Your task to perform on an android device: What's the weather going to be this weekend? Image 0: 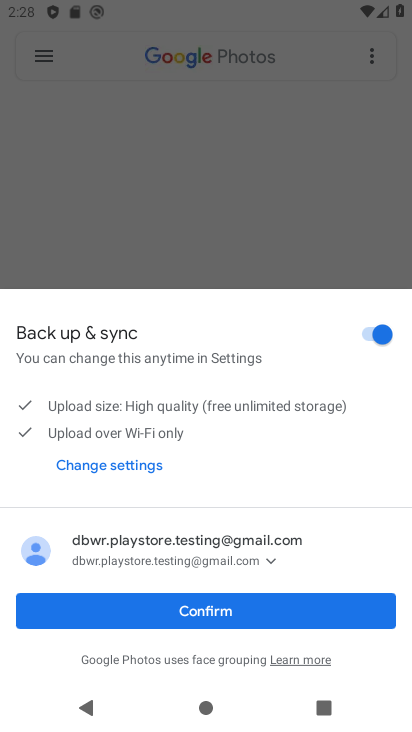
Step 0: click (246, 599)
Your task to perform on an android device: What's the weather going to be this weekend? Image 1: 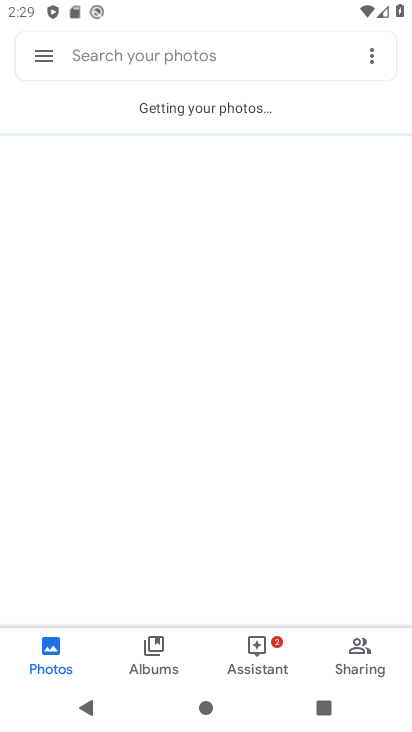
Step 1: press back button
Your task to perform on an android device: What's the weather going to be this weekend? Image 2: 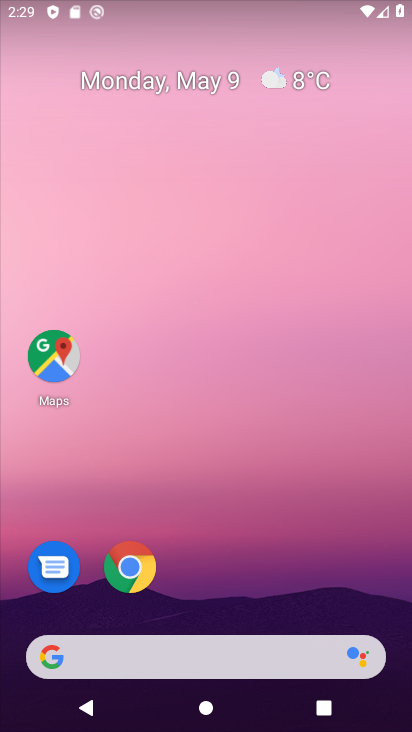
Step 2: click (129, 559)
Your task to perform on an android device: What's the weather going to be this weekend? Image 3: 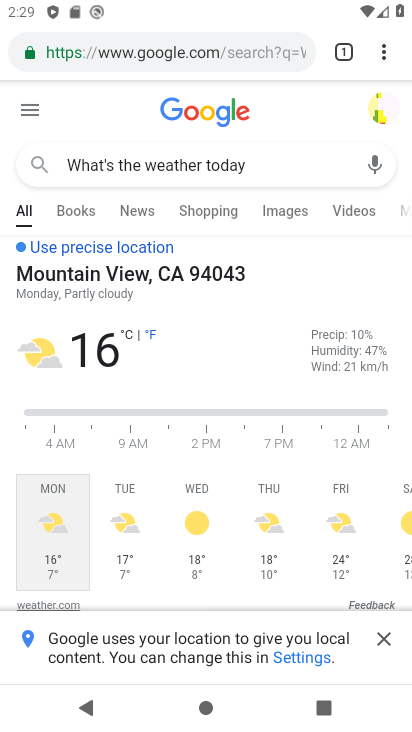
Step 3: click (188, 45)
Your task to perform on an android device: What's the weather going to be this weekend? Image 4: 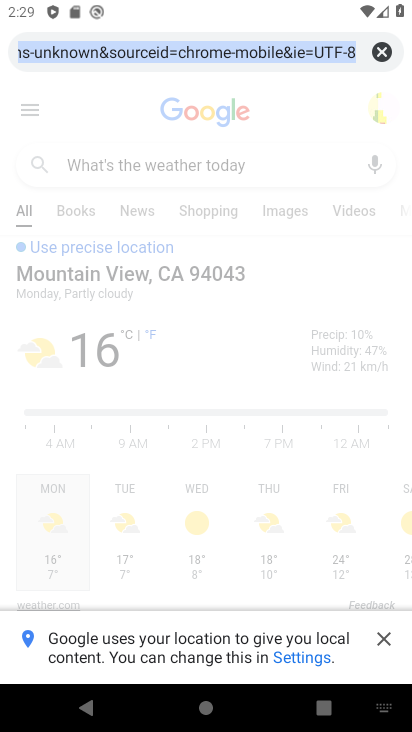
Step 4: click (377, 51)
Your task to perform on an android device: What's the weather going to be this weekend? Image 5: 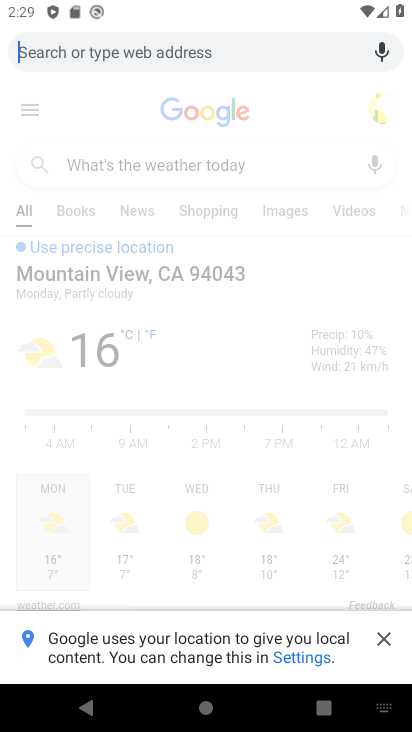
Step 5: type "What's the weather going to be this weekend?"
Your task to perform on an android device: What's the weather going to be this weekend? Image 6: 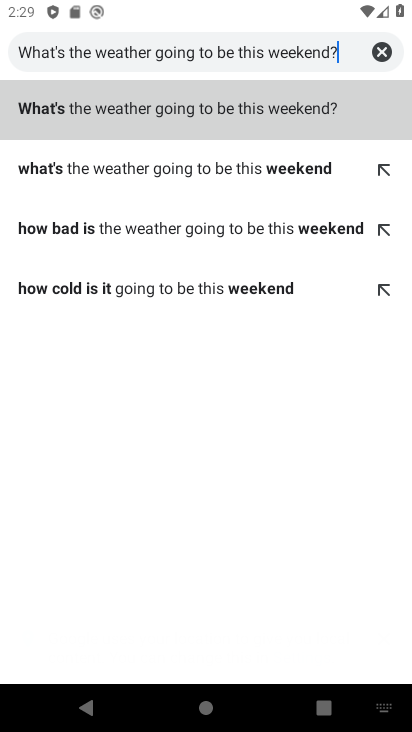
Step 6: type ""
Your task to perform on an android device: What's the weather going to be this weekend? Image 7: 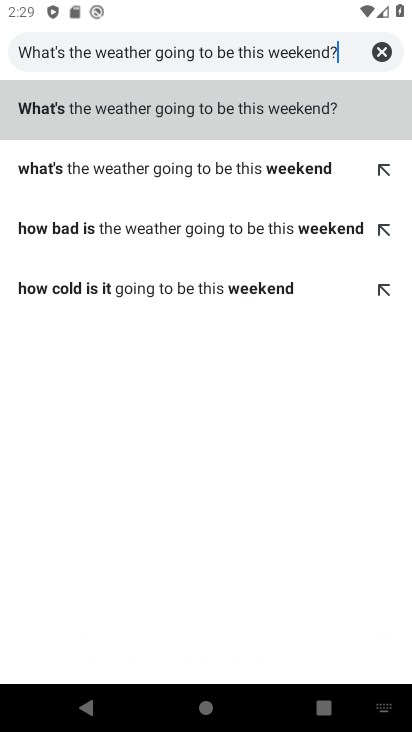
Step 7: click (205, 122)
Your task to perform on an android device: What's the weather going to be this weekend? Image 8: 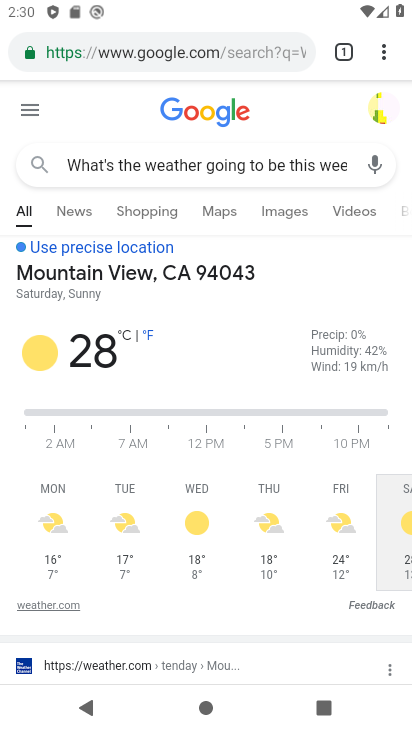
Step 8: task complete